Your task to perform on an android device: see sites visited before in the chrome app Image 0: 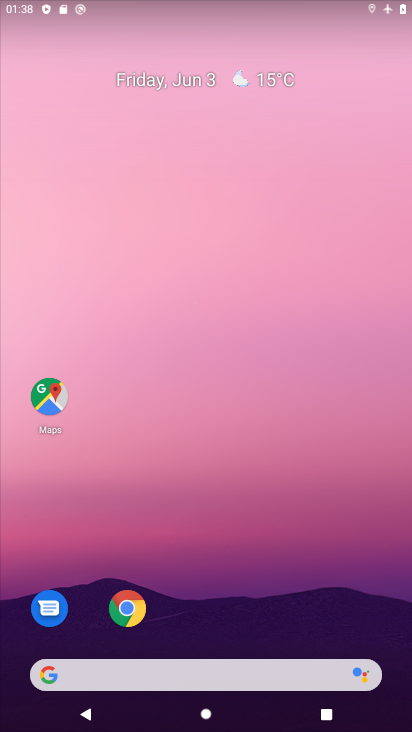
Step 0: click (130, 612)
Your task to perform on an android device: see sites visited before in the chrome app Image 1: 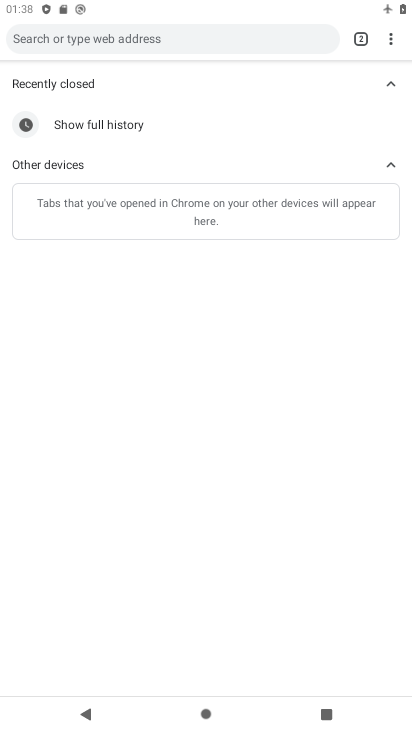
Step 1: task complete